Your task to perform on an android device: Add logitech g pro to the cart on newegg.com Image 0: 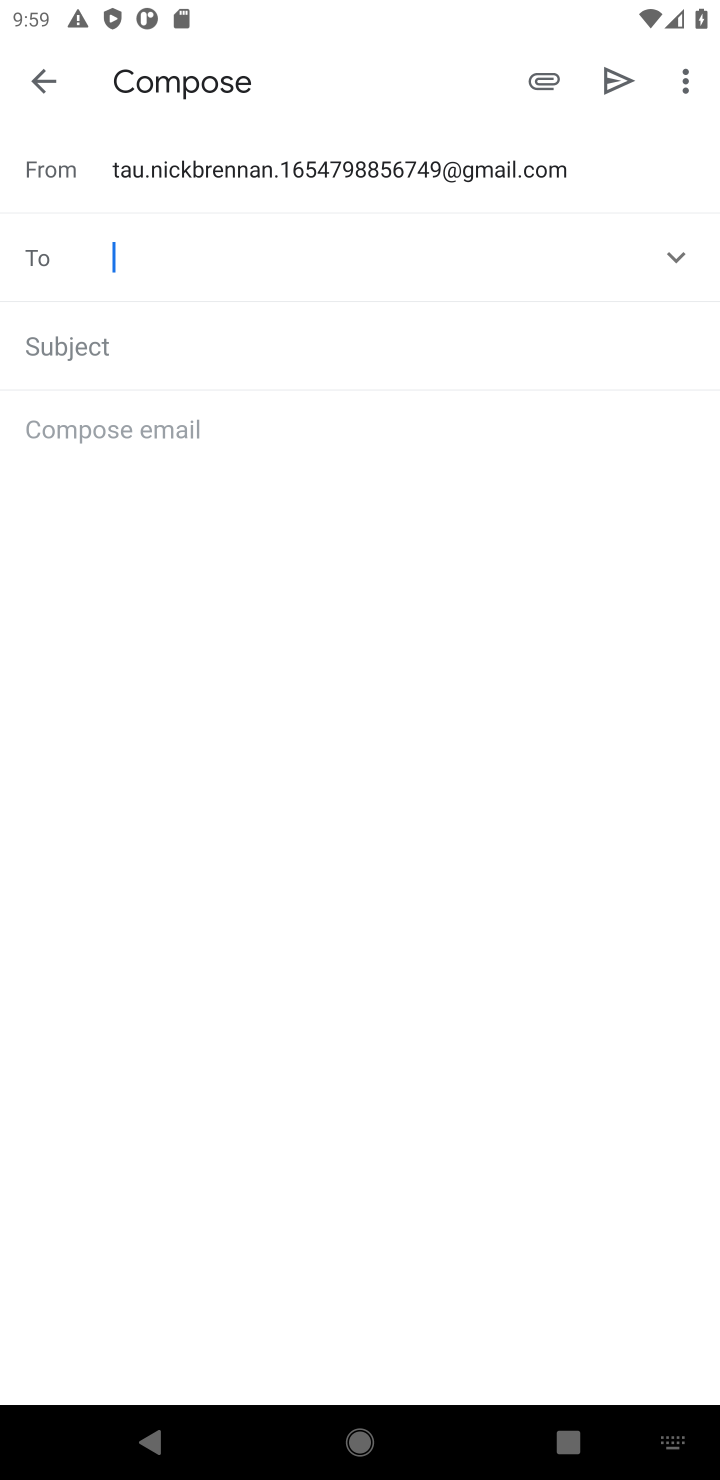
Step 0: press home button
Your task to perform on an android device: Add logitech g pro to the cart on newegg.com Image 1: 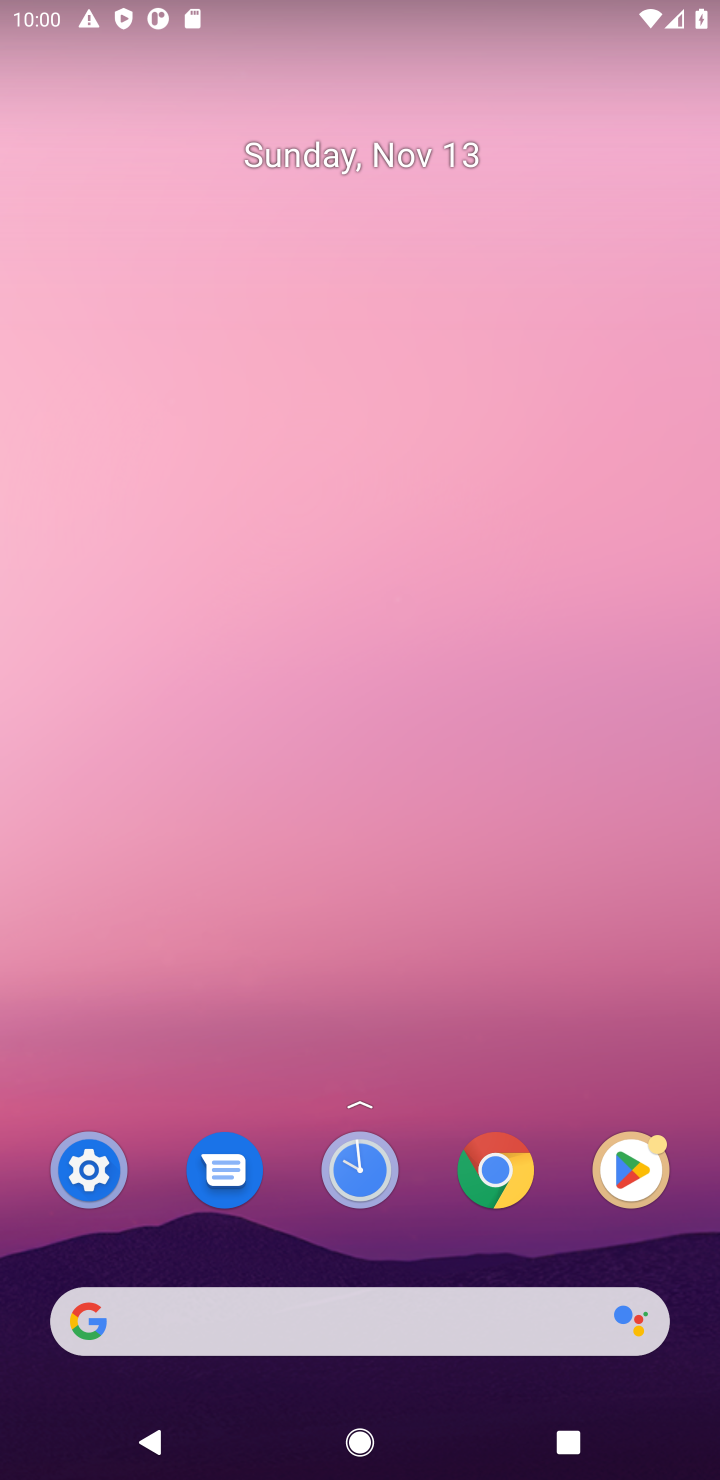
Step 1: click (339, 1312)
Your task to perform on an android device: Add logitech g pro to the cart on newegg.com Image 2: 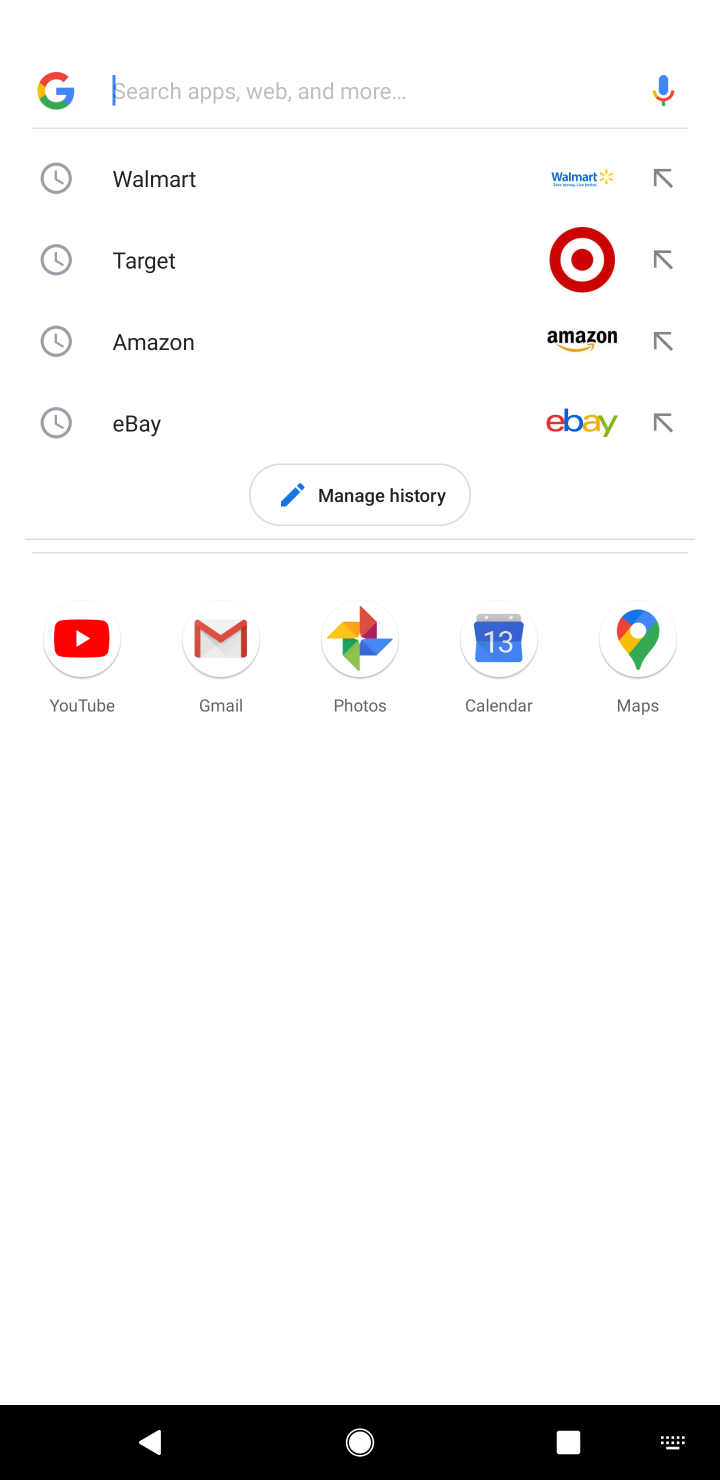
Step 2: type "newegg.com"
Your task to perform on an android device: Add logitech g pro to the cart on newegg.com Image 3: 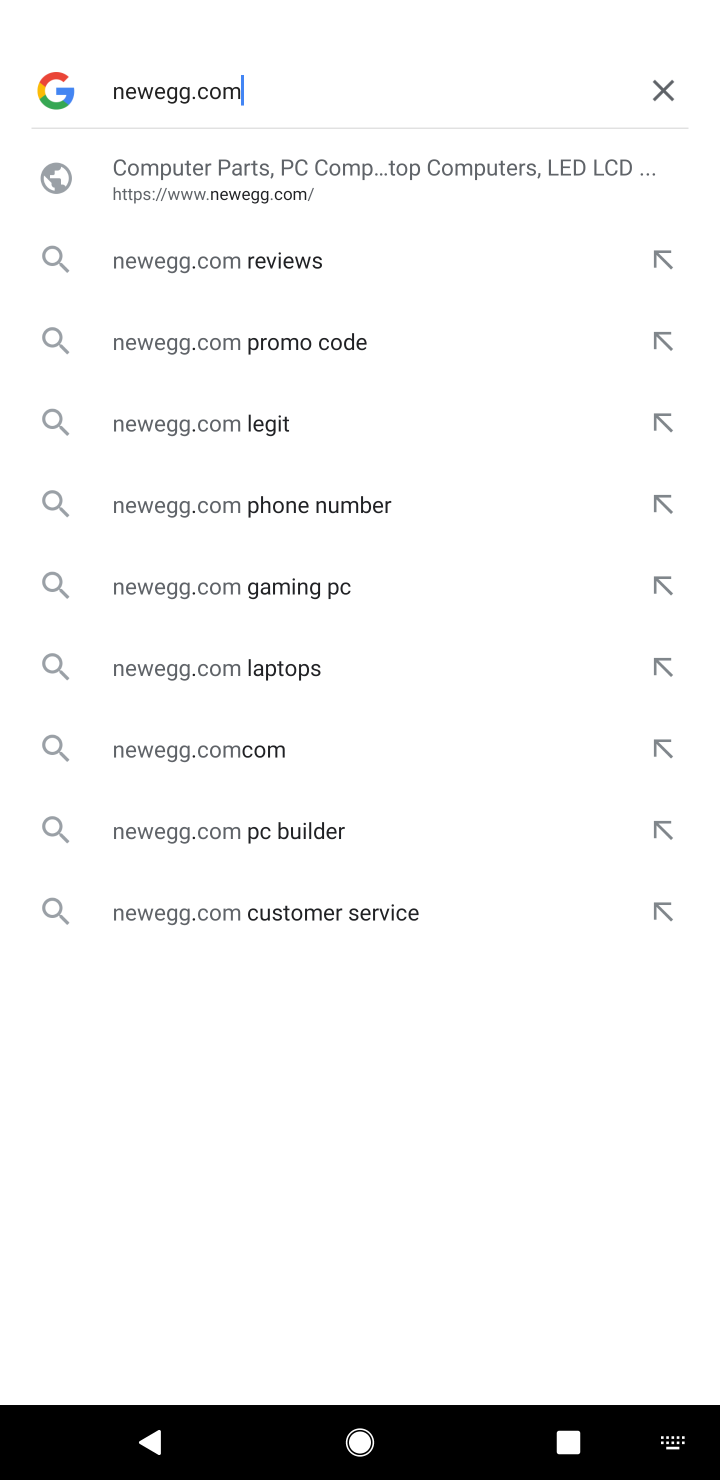
Step 3: click (238, 222)
Your task to perform on an android device: Add logitech g pro to the cart on newegg.com Image 4: 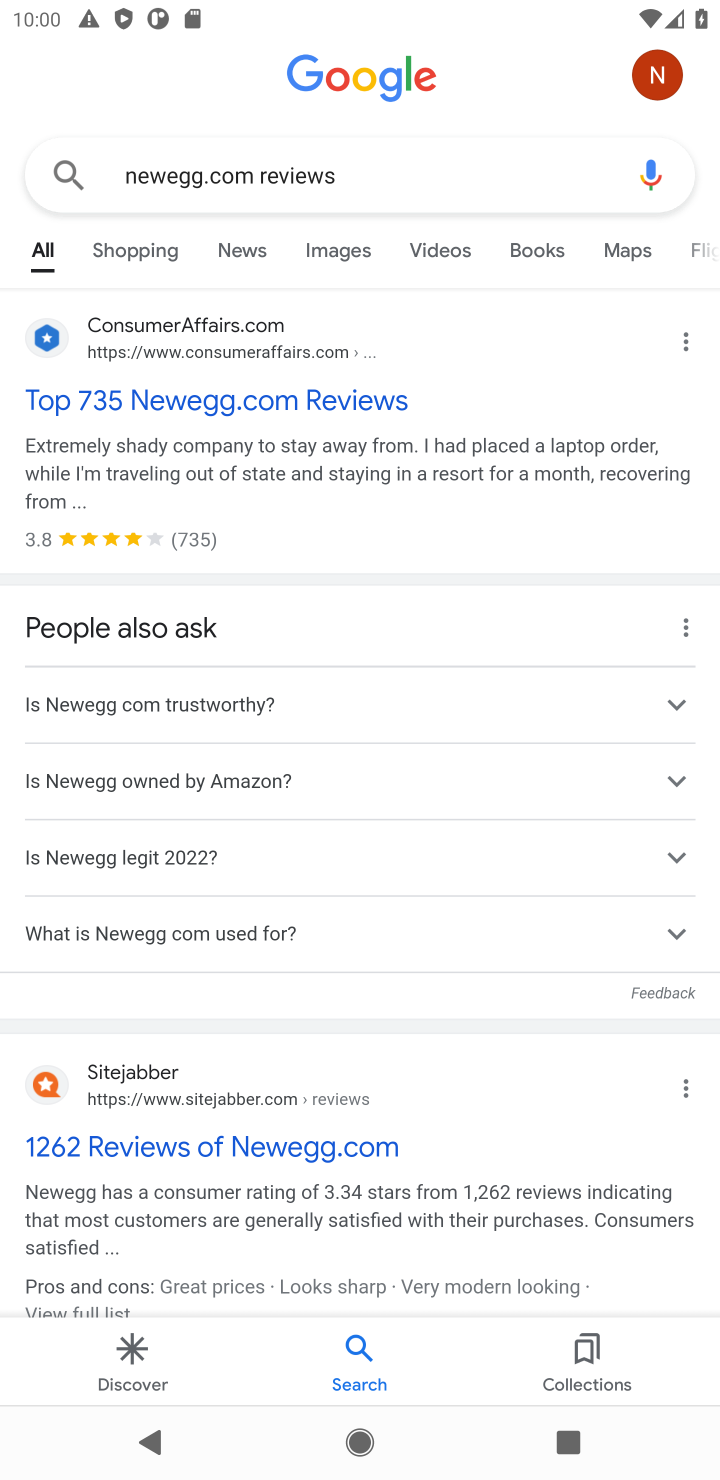
Step 4: click (183, 397)
Your task to perform on an android device: Add logitech g pro to the cart on newegg.com Image 5: 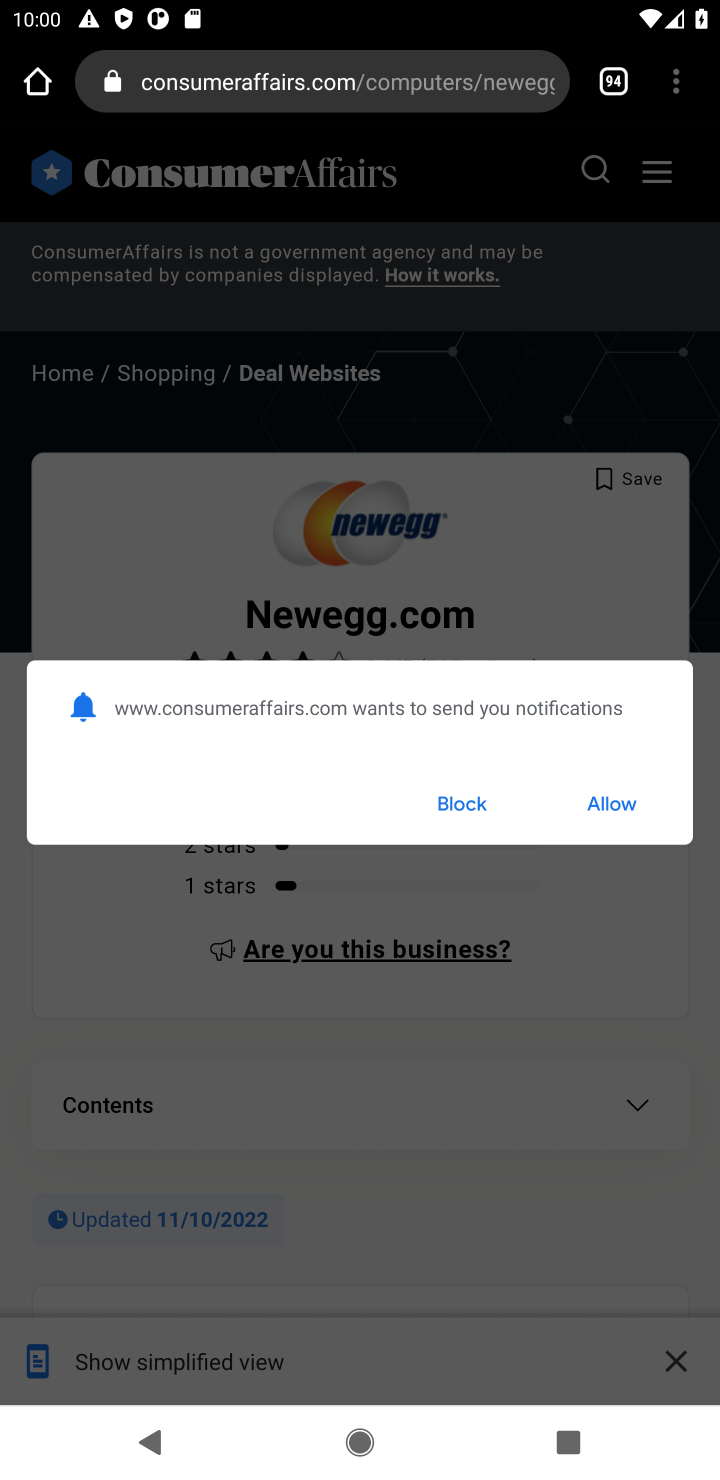
Step 5: task complete